Your task to perform on an android device: Open Wikipedia Image 0: 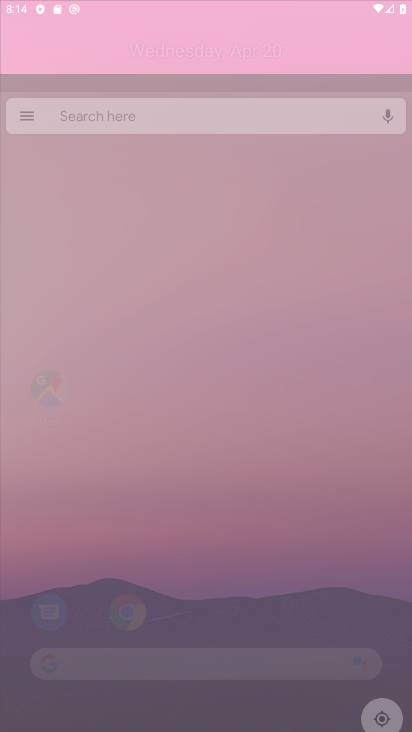
Step 0: drag from (208, 682) to (231, 42)
Your task to perform on an android device: Open Wikipedia Image 1: 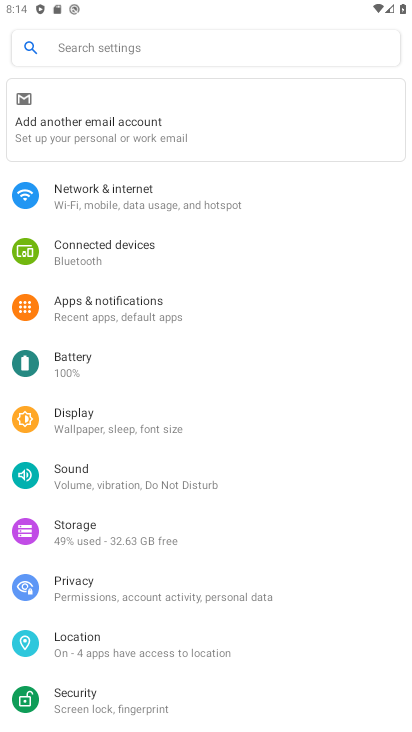
Step 1: press home button
Your task to perform on an android device: Open Wikipedia Image 2: 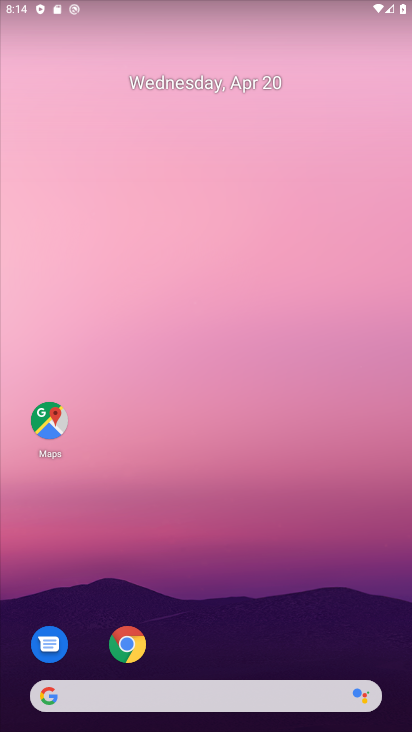
Step 2: drag from (325, 633) to (343, 204)
Your task to perform on an android device: Open Wikipedia Image 3: 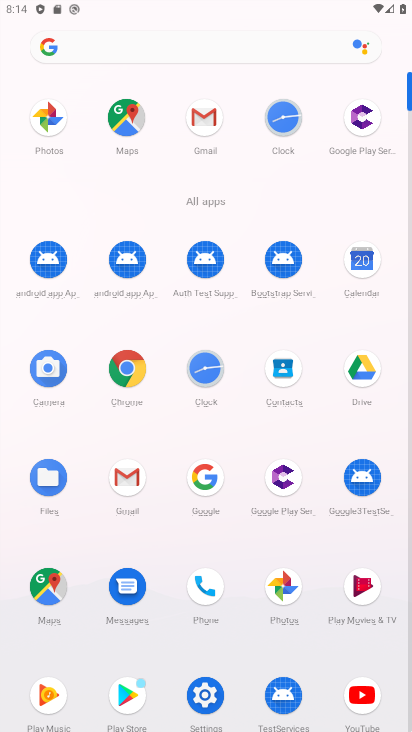
Step 3: press home button
Your task to perform on an android device: Open Wikipedia Image 4: 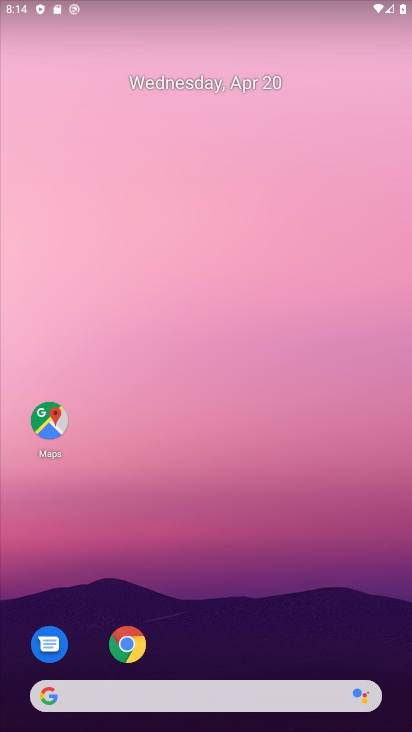
Step 4: drag from (380, 724) to (383, 125)
Your task to perform on an android device: Open Wikipedia Image 5: 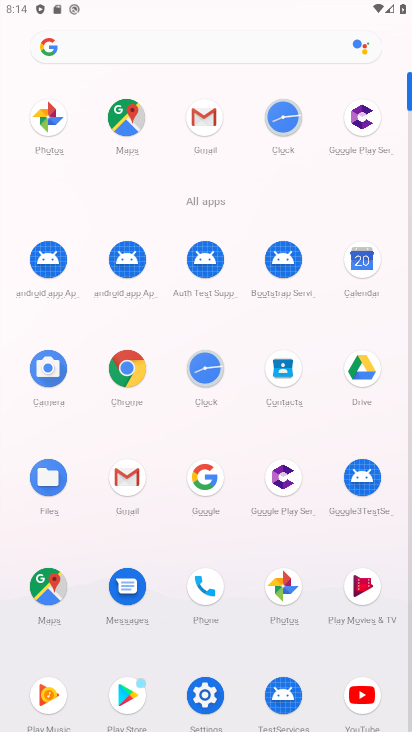
Step 5: drag from (344, 400) to (344, 1)
Your task to perform on an android device: Open Wikipedia Image 6: 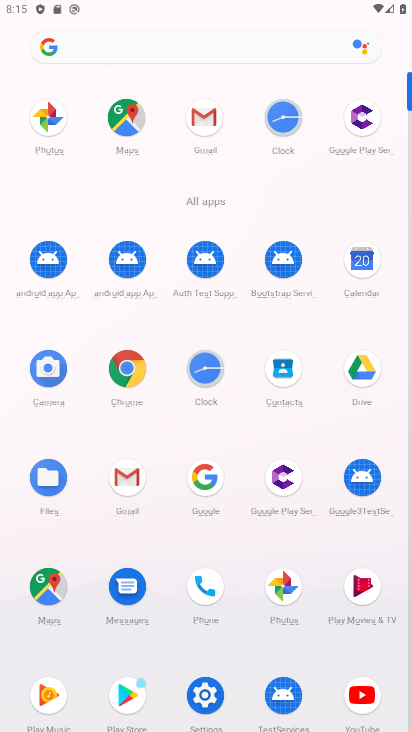
Step 6: click (130, 369)
Your task to perform on an android device: Open Wikipedia Image 7: 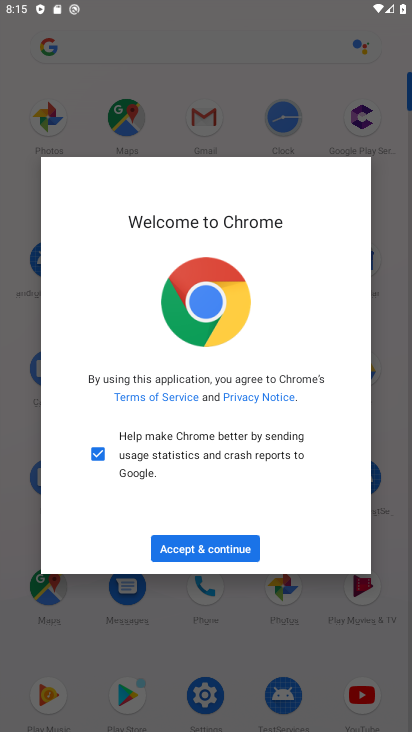
Step 7: click (238, 542)
Your task to perform on an android device: Open Wikipedia Image 8: 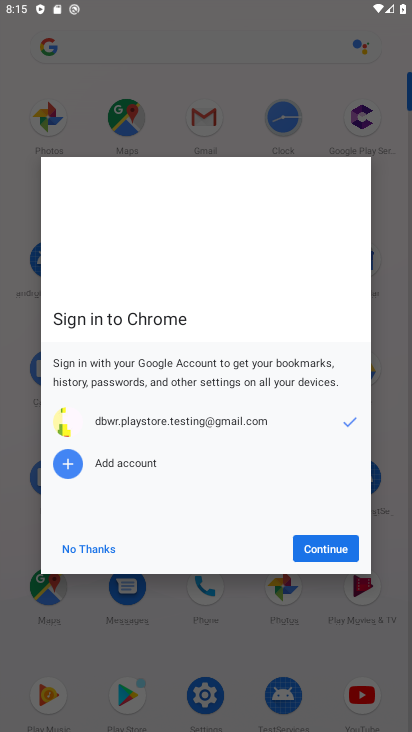
Step 8: click (84, 552)
Your task to perform on an android device: Open Wikipedia Image 9: 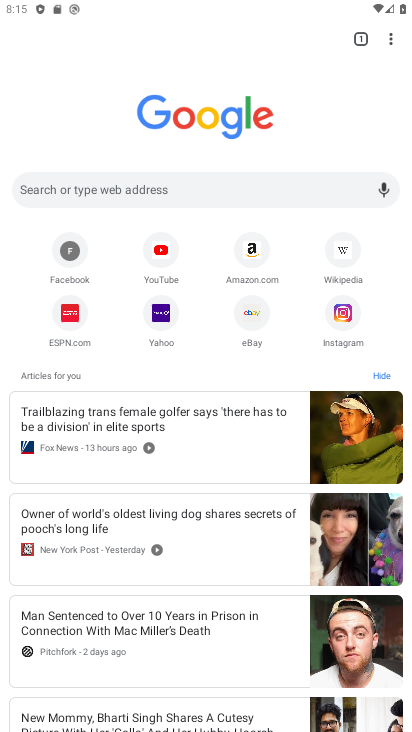
Step 9: click (237, 190)
Your task to perform on an android device: Open Wikipedia Image 10: 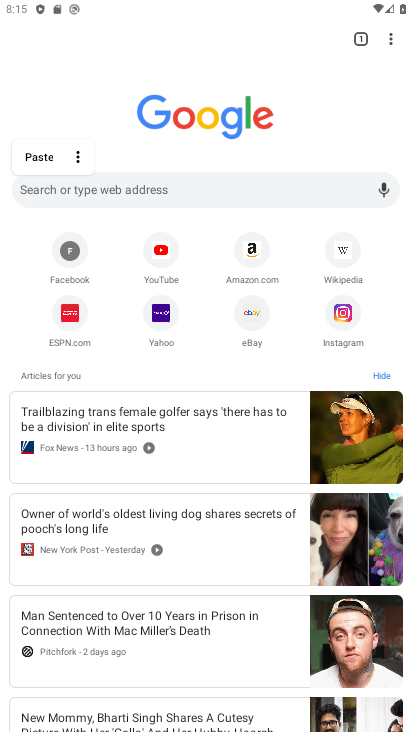
Step 10: click (207, 182)
Your task to perform on an android device: Open Wikipedia Image 11: 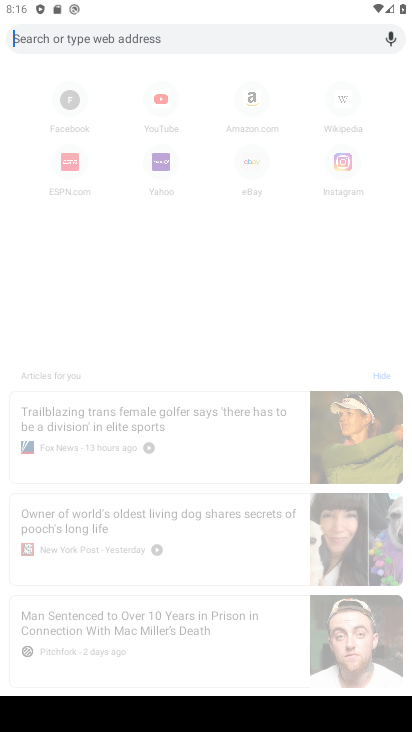
Step 11: type "wikipedia"
Your task to perform on an android device: Open Wikipedia Image 12: 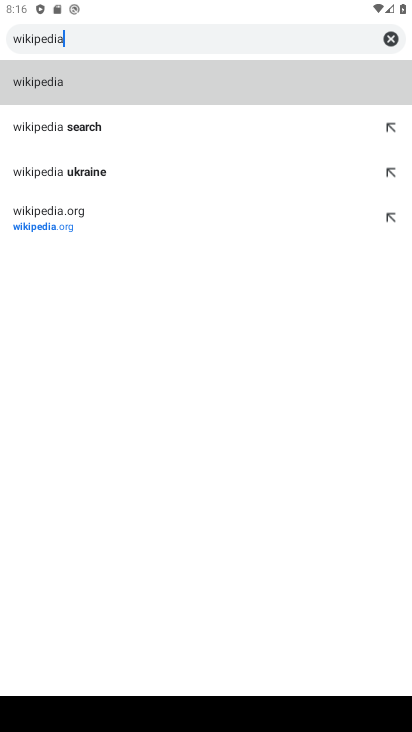
Step 12: click (168, 71)
Your task to perform on an android device: Open Wikipedia Image 13: 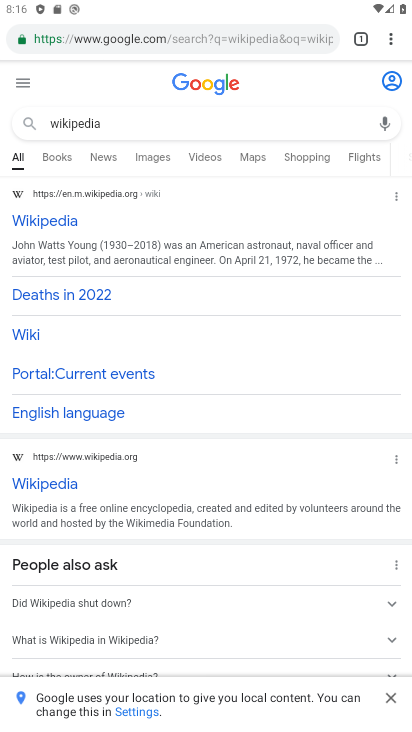
Step 13: task complete